Your task to perform on an android device: open a bookmark in the chrome app Image 0: 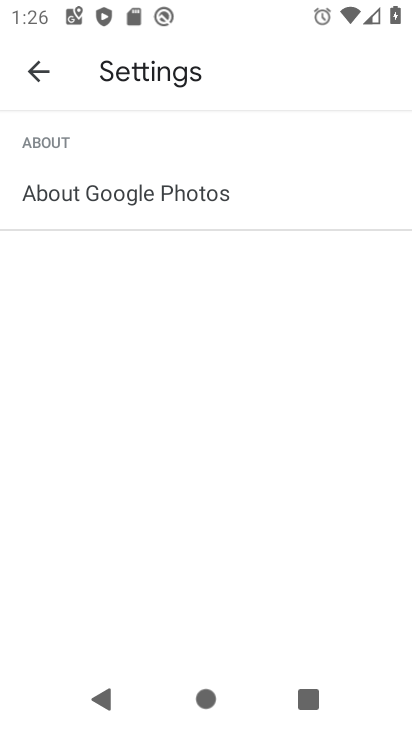
Step 0: press home button
Your task to perform on an android device: open a bookmark in the chrome app Image 1: 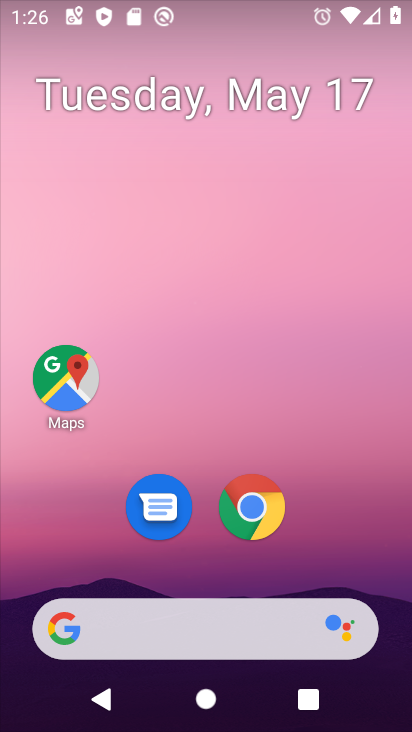
Step 1: drag from (316, 528) to (319, 220)
Your task to perform on an android device: open a bookmark in the chrome app Image 2: 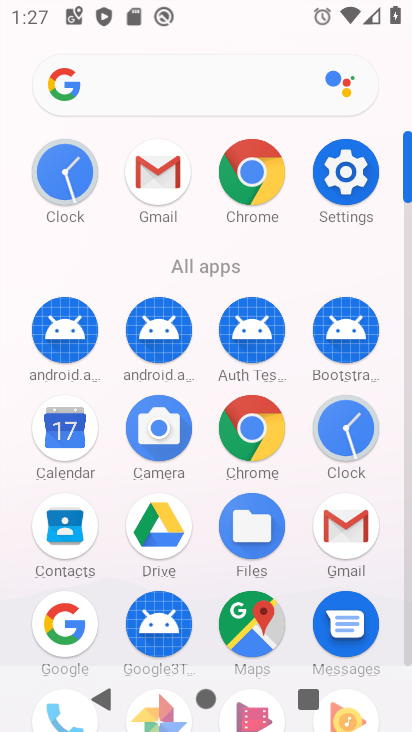
Step 2: drag from (203, 557) to (201, 456)
Your task to perform on an android device: open a bookmark in the chrome app Image 3: 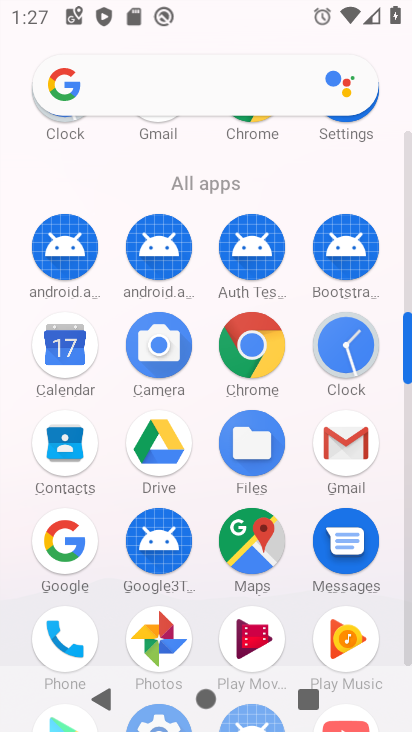
Step 3: click (242, 346)
Your task to perform on an android device: open a bookmark in the chrome app Image 4: 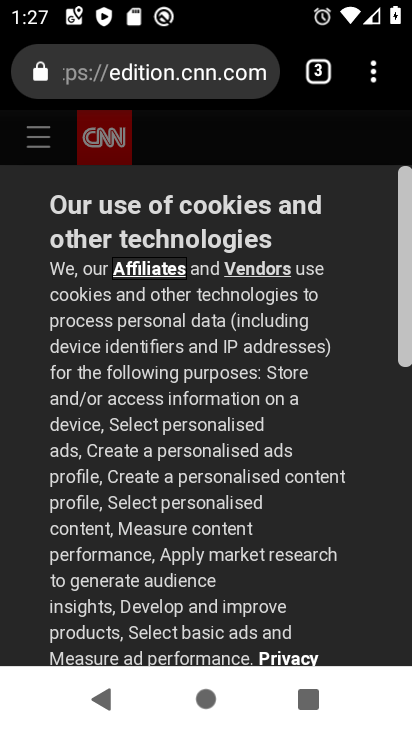
Step 4: click (373, 73)
Your task to perform on an android device: open a bookmark in the chrome app Image 5: 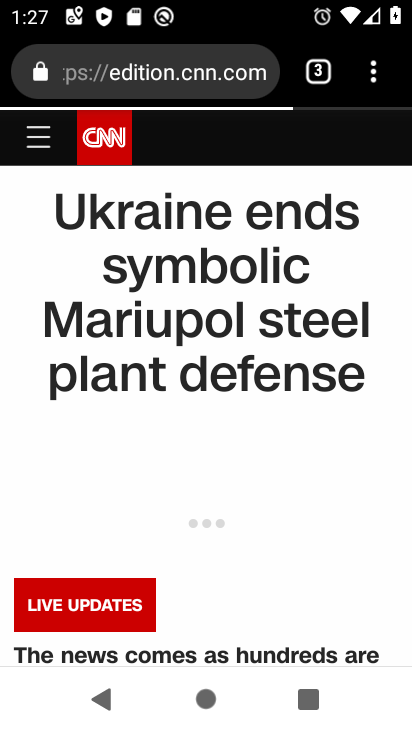
Step 5: click (361, 72)
Your task to perform on an android device: open a bookmark in the chrome app Image 6: 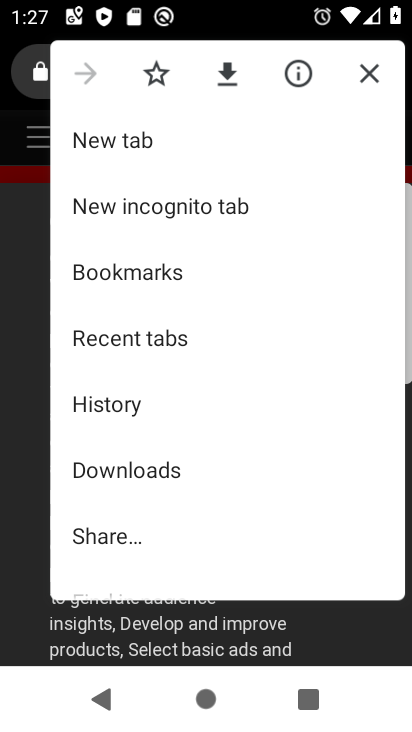
Step 6: drag from (196, 468) to (240, 314)
Your task to perform on an android device: open a bookmark in the chrome app Image 7: 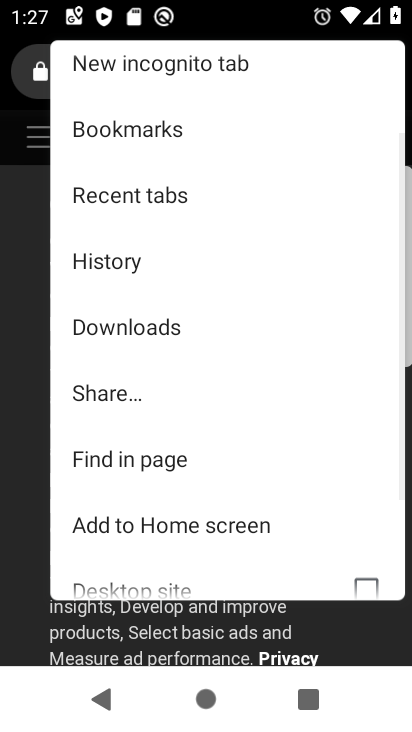
Step 7: click (218, 498)
Your task to perform on an android device: open a bookmark in the chrome app Image 8: 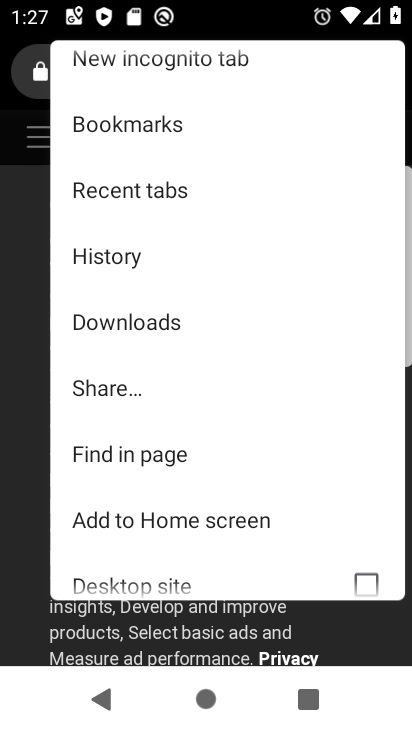
Step 8: click (171, 102)
Your task to perform on an android device: open a bookmark in the chrome app Image 9: 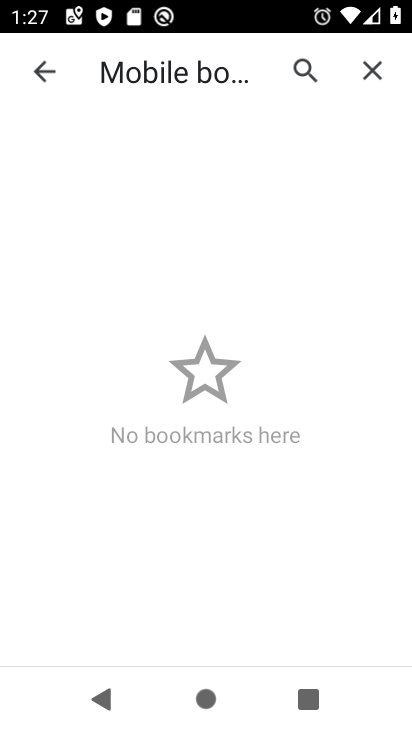
Step 9: task complete